Your task to perform on an android device: search for starred emails in the gmail app Image 0: 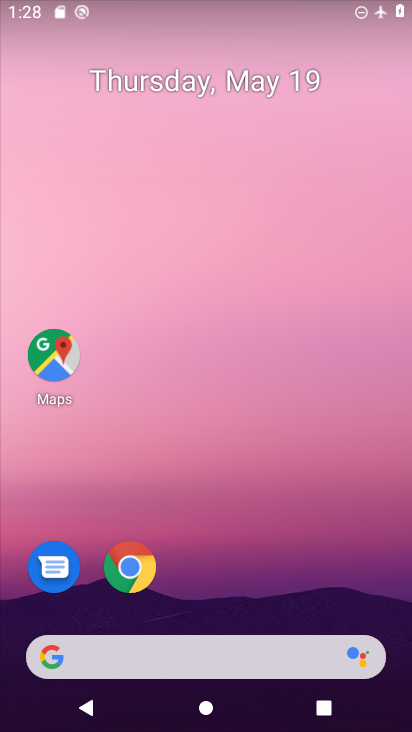
Step 0: drag from (267, 549) to (200, 90)
Your task to perform on an android device: search for starred emails in the gmail app Image 1: 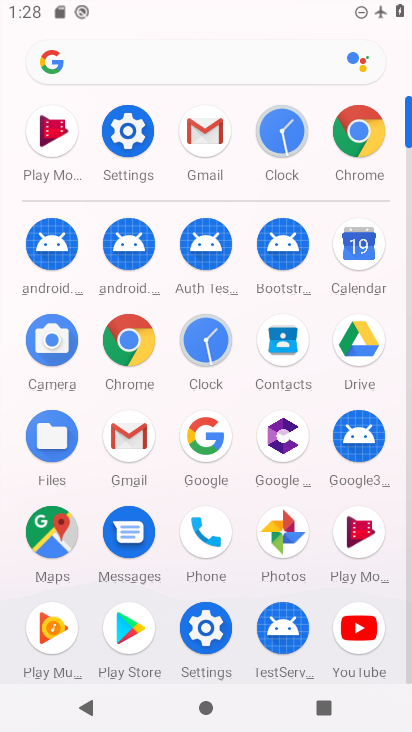
Step 1: click (200, 140)
Your task to perform on an android device: search for starred emails in the gmail app Image 2: 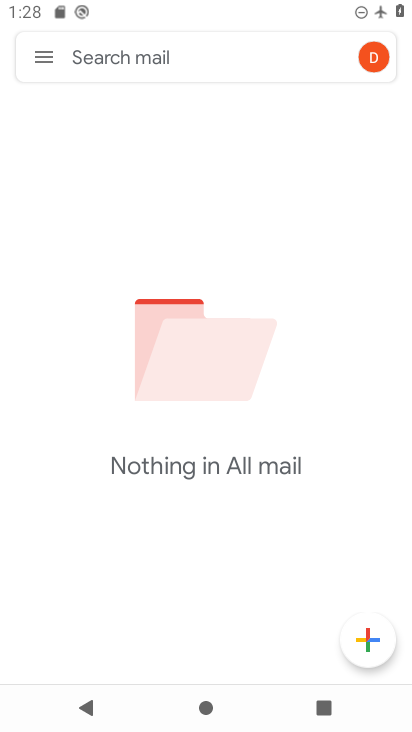
Step 2: click (47, 50)
Your task to perform on an android device: search for starred emails in the gmail app Image 3: 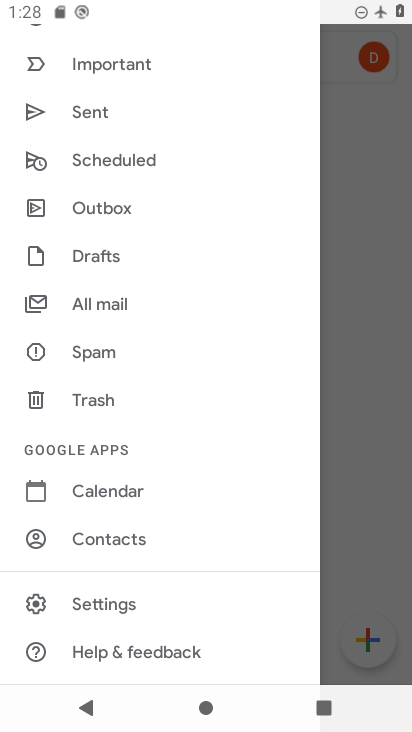
Step 3: drag from (211, 250) to (264, 519)
Your task to perform on an android device: search for starred emails in the gmail app Image 4: 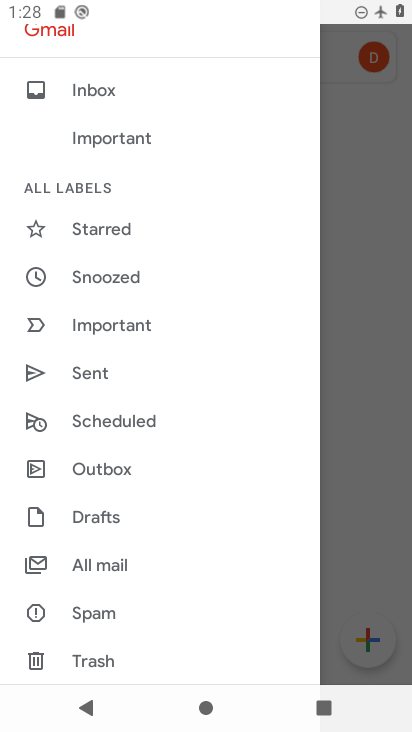
Step 4: click (129, 229)
Your task to perform on an android device: search for starred emails in the gmail app Image 5: 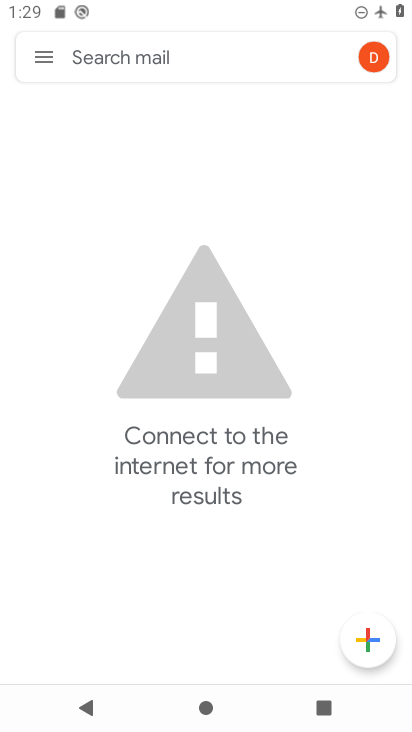
Step 5: task complete